Your task to perform on an android device: turn off location history Image 0: 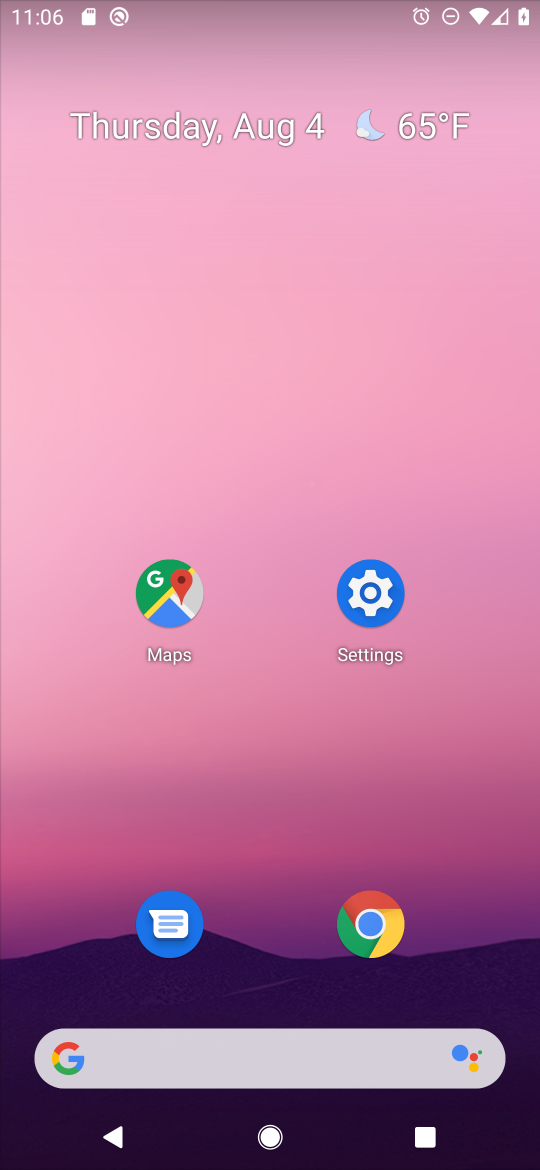
Step 0: click (168, 587)
Your task to perform on an android device: turn off location history Image 1: 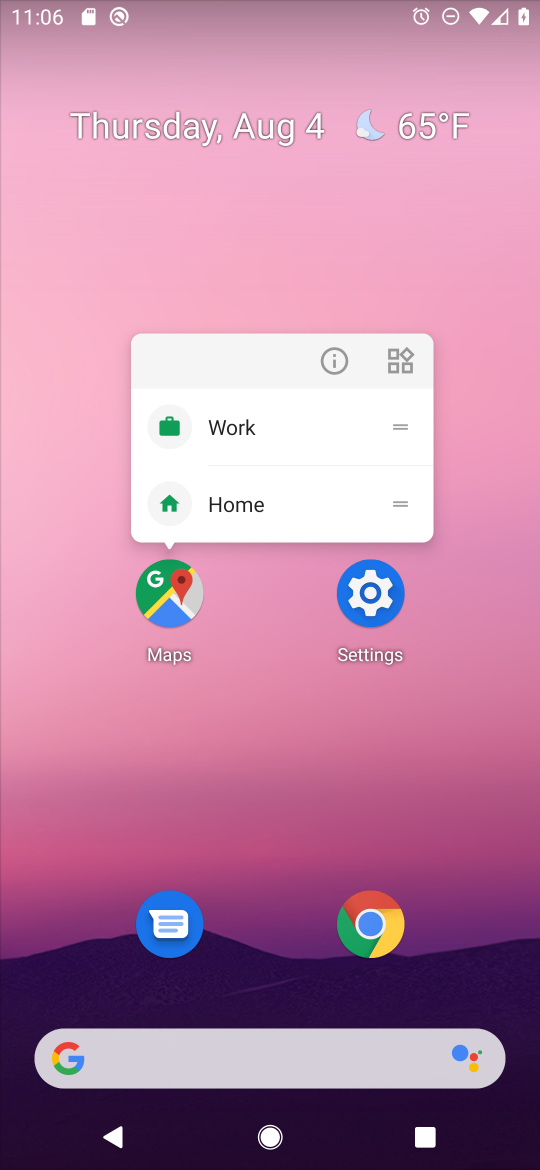
Step 1: click (168, 597)
Your task to perform on an android device: turn off location history Image 2: 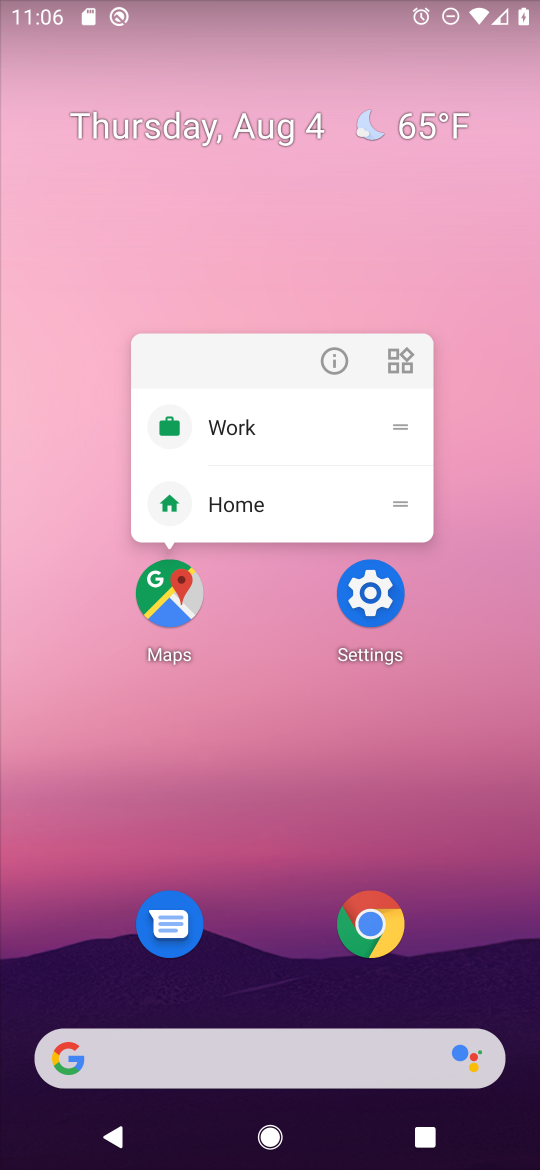
Step 2: click (168, 595)
Your task to perform on an android device: turn off location history Image 3: 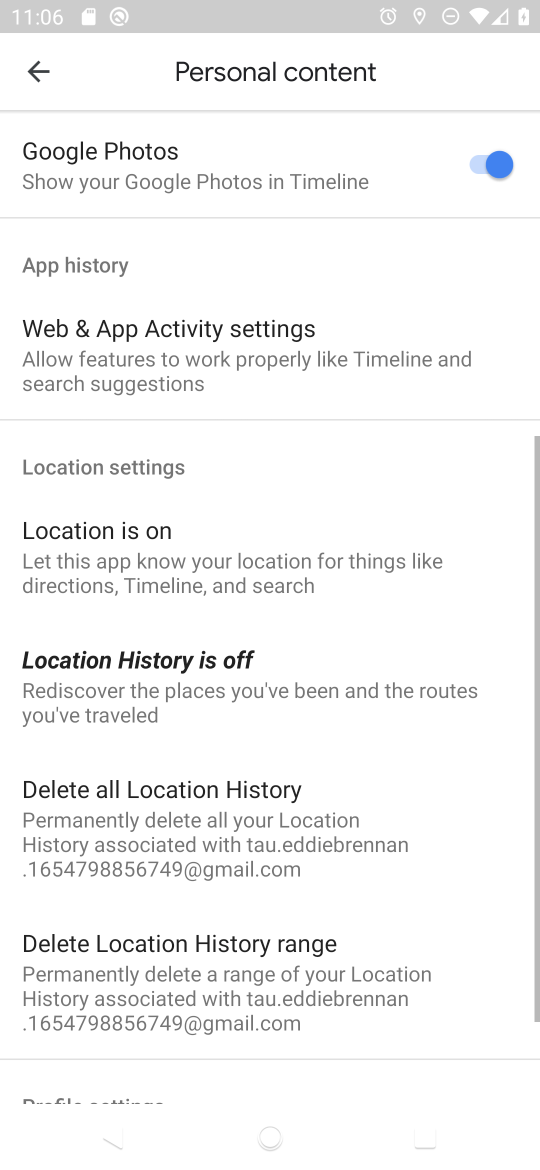
Step 3: click (202, 679)
Your task to perform on an android device: turn off location history Image 4: 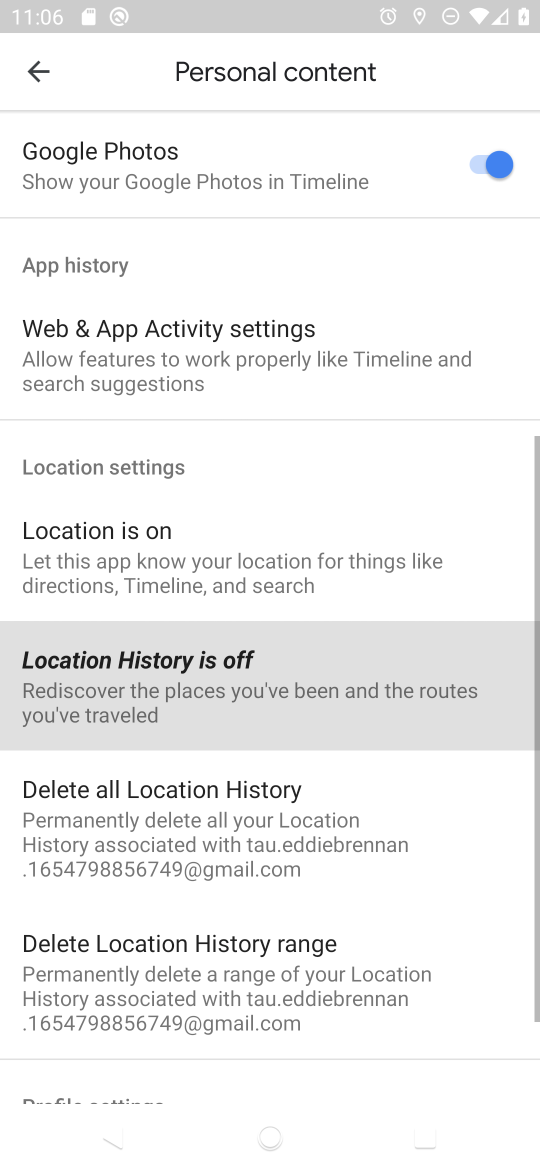
Step 4: click (202, 679)
Your task to perform on an android device: turn off location history Image 5: 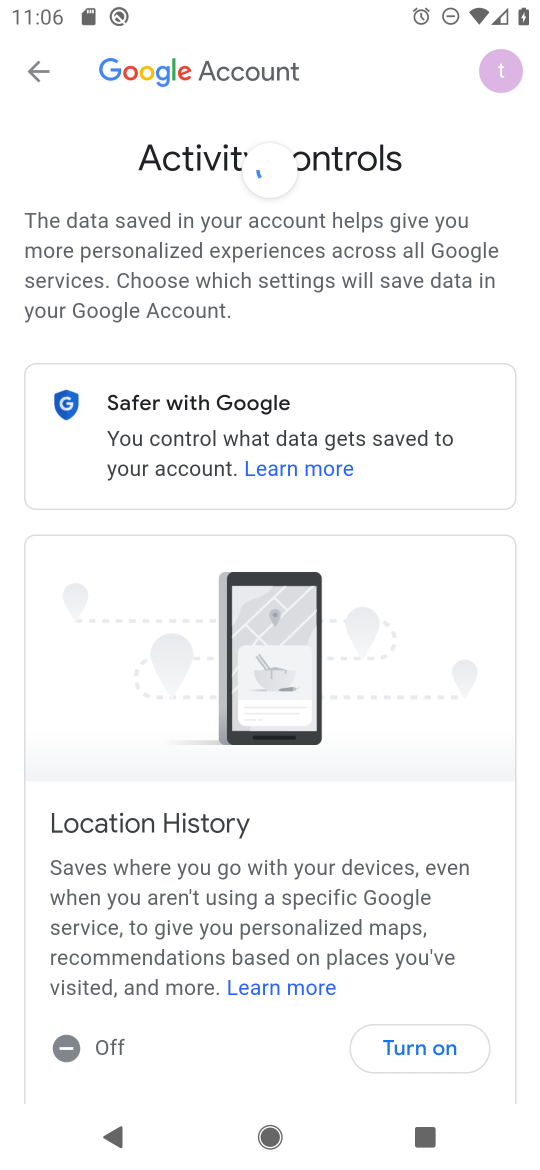
Step 5: task complete